Your task to perform on an android device: open wifi settings Image 0: 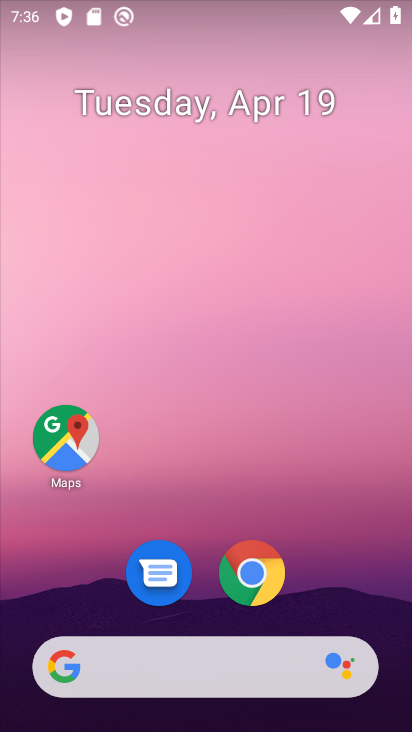
Step 0: drag from (282, 662) to (274, 222)
Your task to perform on an android device: open wifi settings Image 1: 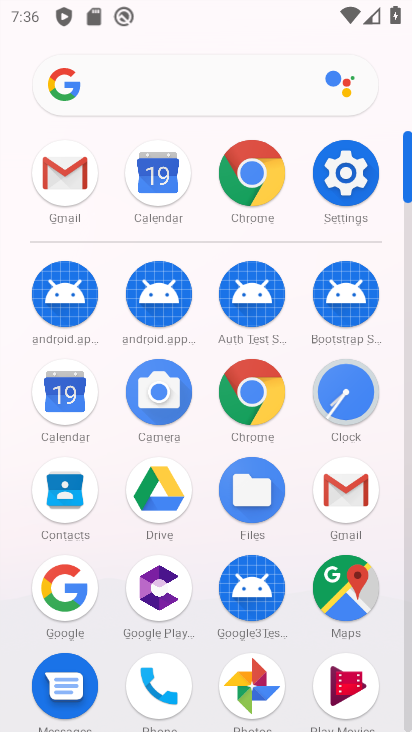
Step 1: click (361, 167)
Your task to perform on an android device: open wifi settings Image 2: 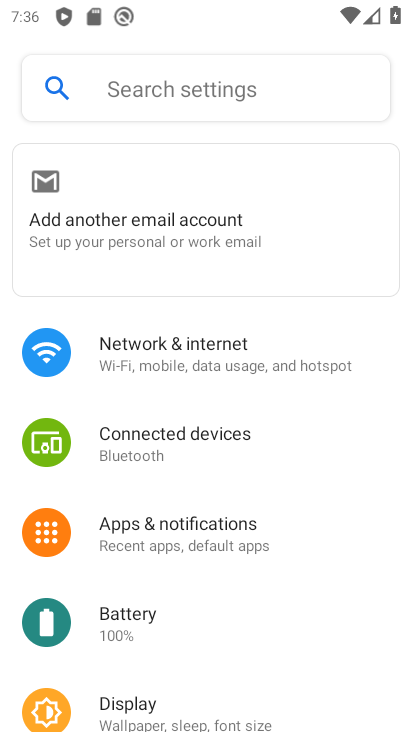
Step 2: click (206, 366)
Your task to perform on an android device: open wifi settings Image 3: 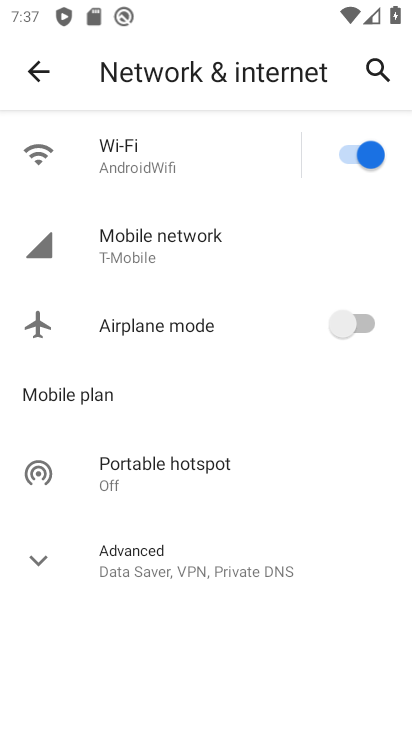
Step 3: click (191, 166)
Your task to perform on an android device: open wifi settings Image 4: 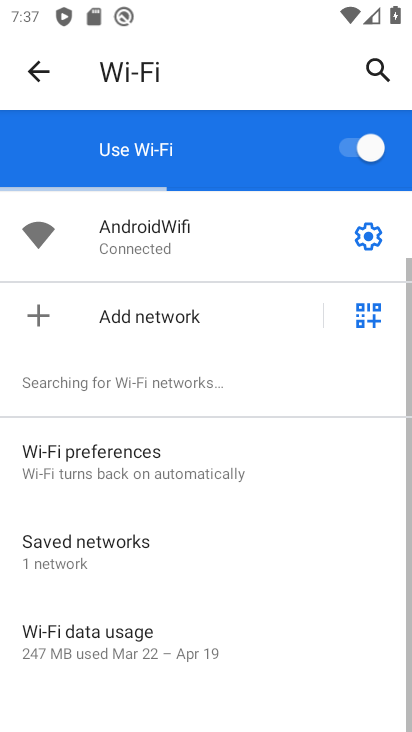
Step 4: task complete